Your task to perform on an android device: refresh tabs in the chrome app Image 0: 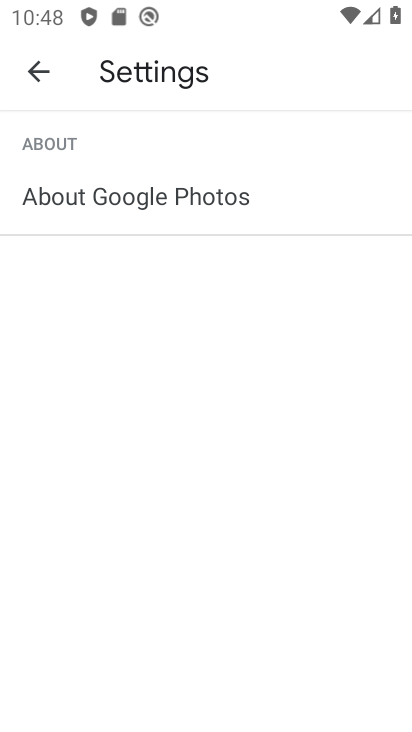
Step 0: press home button
Your task to perform on an android device: refresh tabs in the chrome app Image 1: 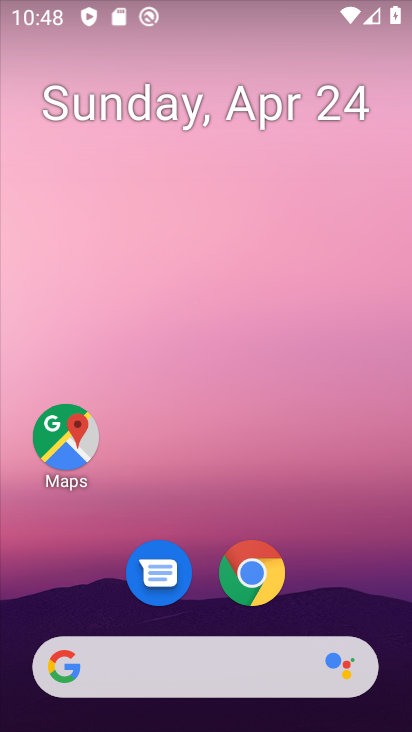
Step 1: click (236, 575)
Your task to perform on an android device: refresh tabs in the chrome app Image 2: 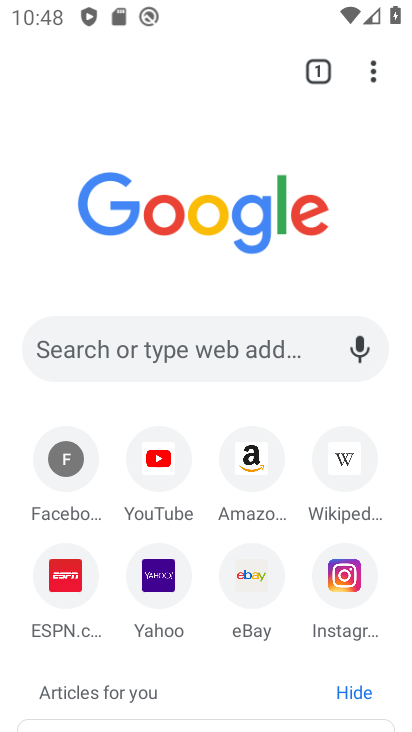
Step 2: click (377, 79)
Your task to perform on an android device: refresh tabs in the chrome app Image 3: 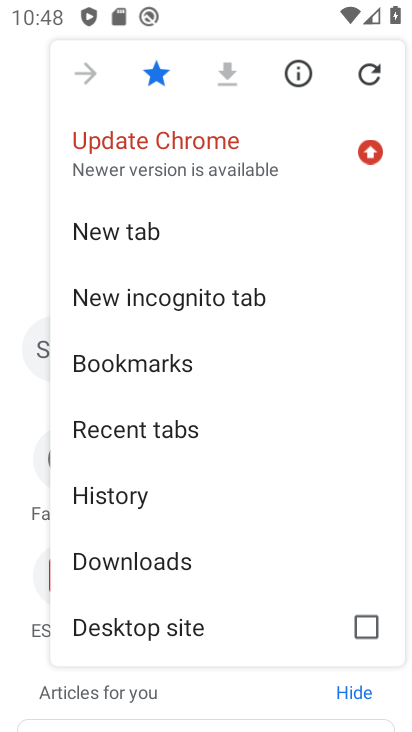
Step 3: click (168, 429)
Your task to perform on an android device: refresh tabs in the chrome app Image 4: 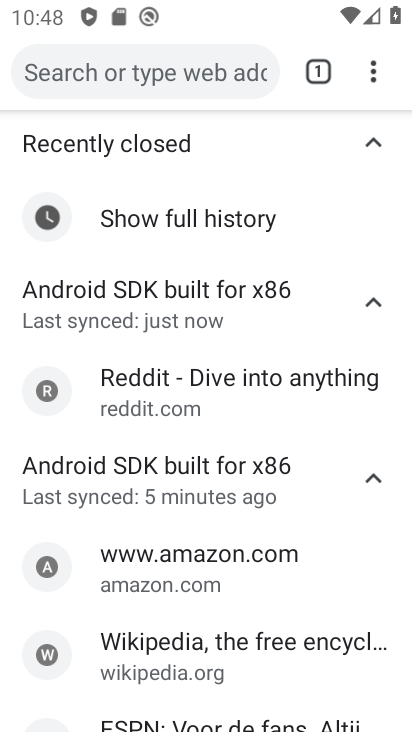
Step 4: click (372, 76)
Your task to perform on an android device: refresh tabs in the chrome app Image 5: 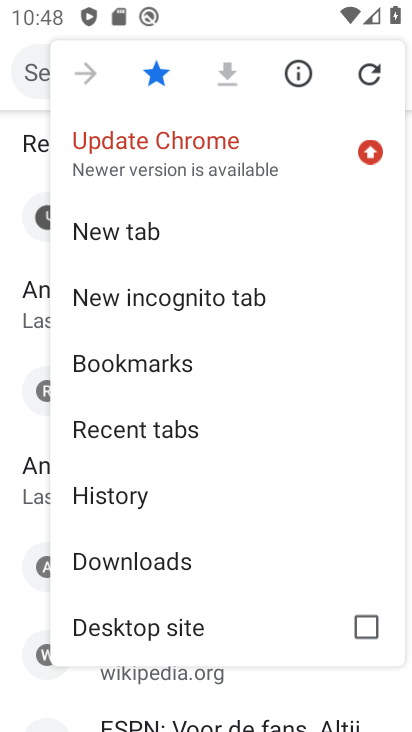
Step 5: click (374, 64)
Your task to perform on an android device: refresh tabs in the chrome app Image 6: 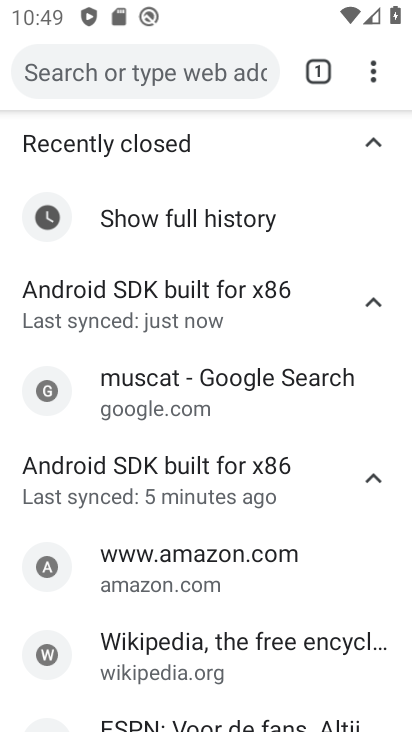
Step 6: task complete